Your task to perform on an android device: all mails in gmail Image 0: 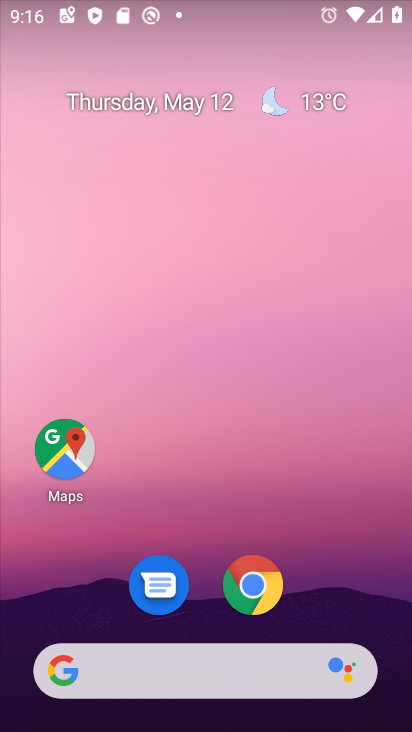
Step 0: drag from (228, 468) to (227, 80)
Your task to perform on an android device: all mails in gmail Image 1: 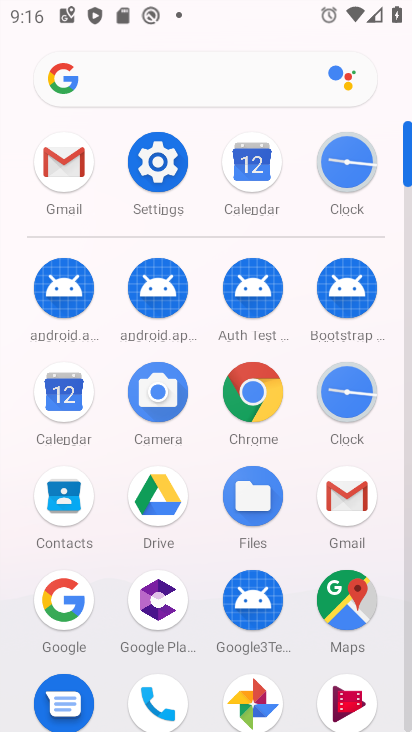
Step 1: click (56, 160)
Your task to perform on an android device: all mails in gmail Image 2: 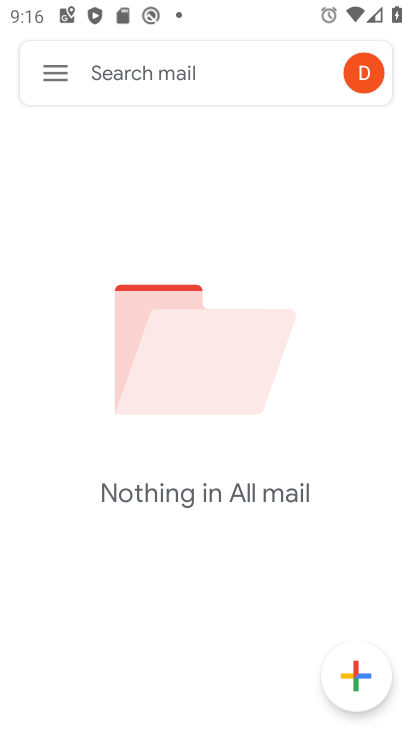
Step 2: task complete